Your task to perform on an android device: View the shopping cart on ebay. Search for razer huntsman on ebay, select the first entry, add it to the cart, then select checkout. Image 0: 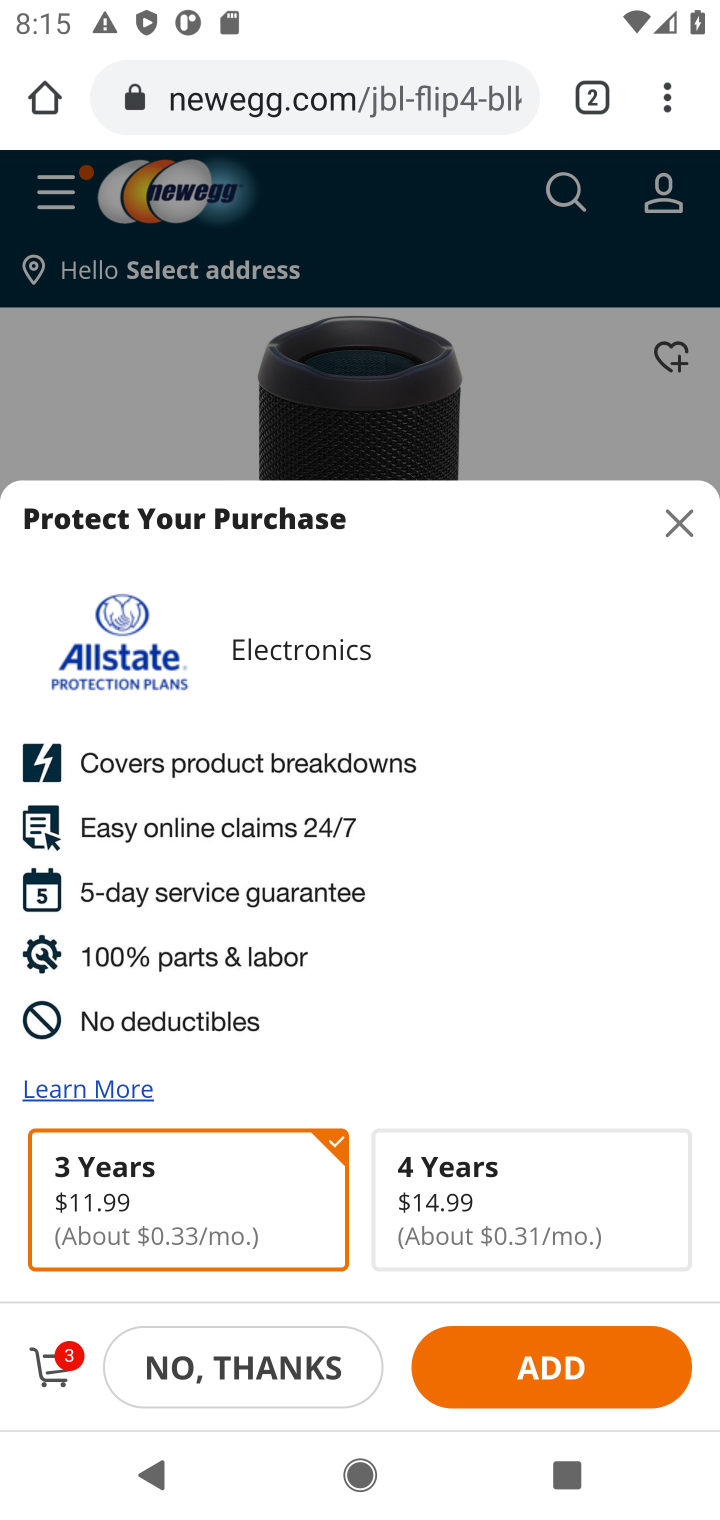
Step 0: click (210, 112)
Your task to perform on an android device: View the shopping cart on ebay. Search for razer huntsman on ebay, select the first entry, add it to the cart, then select checkout. Image 1: 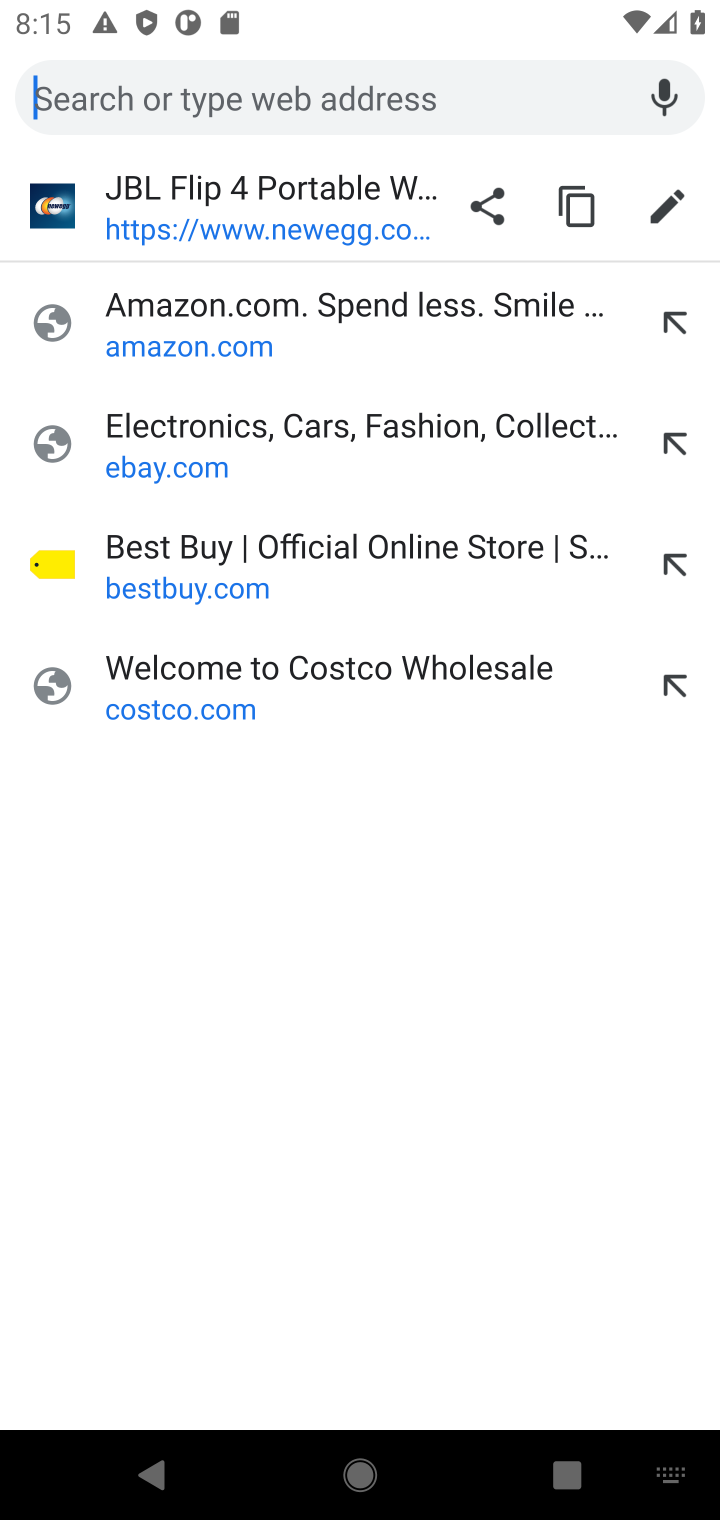
Step 1: click (173, 492)
Your task to perform on an android device: View the shopping cart on ebay. Search for razer huntsman on ebay, select the first entry, add it to the cart, then select checkout. Image 2: 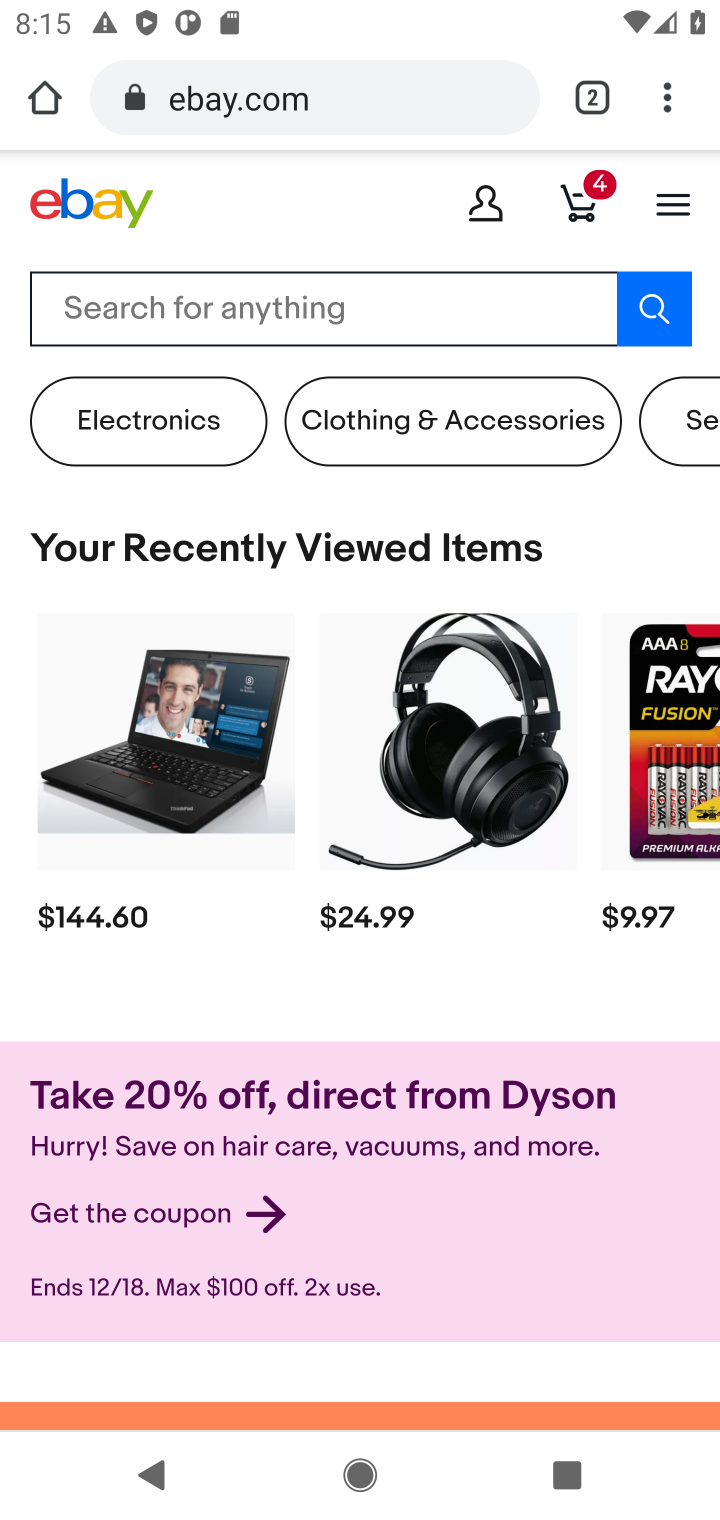
Step 2: click (583, 205)
Your task to perform on an android device: View the shopping cart on ebay. Search for razer huntsman on ebay, select the first entry, add it to the cart, then select checkout. Image 3: 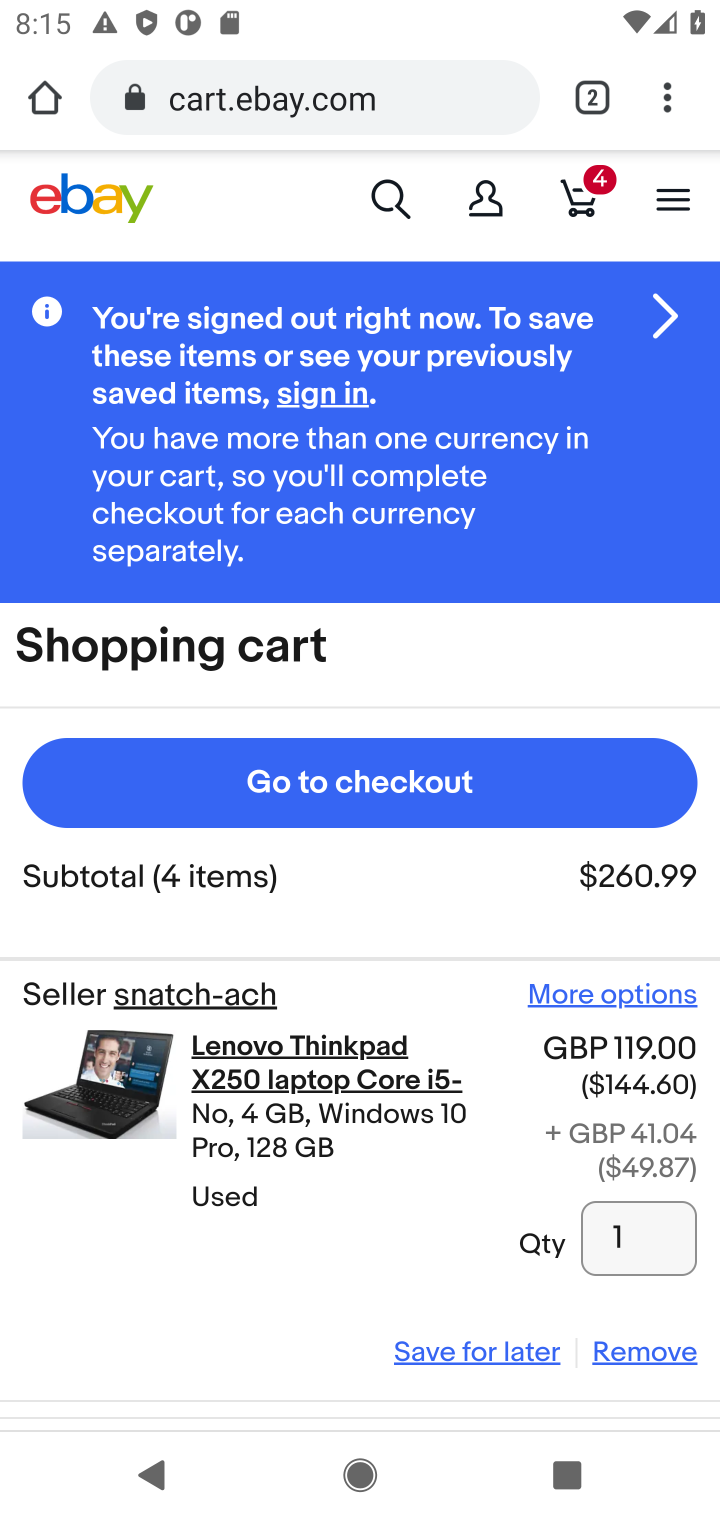
Step 3: click (383, 202)
Your task to perform on an android device: View the shopping cart on ebay. Search for razer huntsman on ebay, select the first entry, add it to the cart, then select checkout. Image 4: 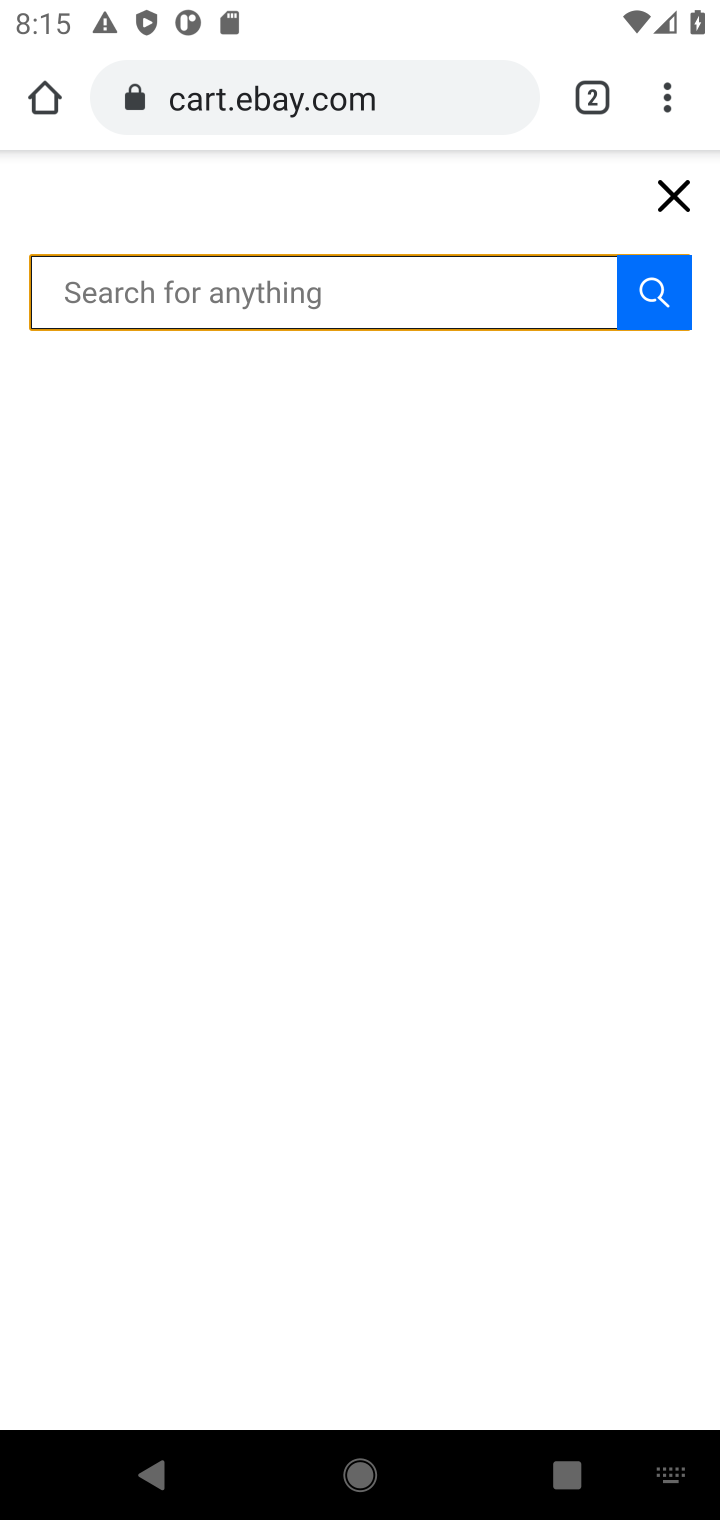
Step 4: type "razer huntsman "
Your task to perform on an android device: View the shopping cart on ebay. Search for razer huntsman on ebay, select the first entry, add it to the cart, then select checkout. Image 5: 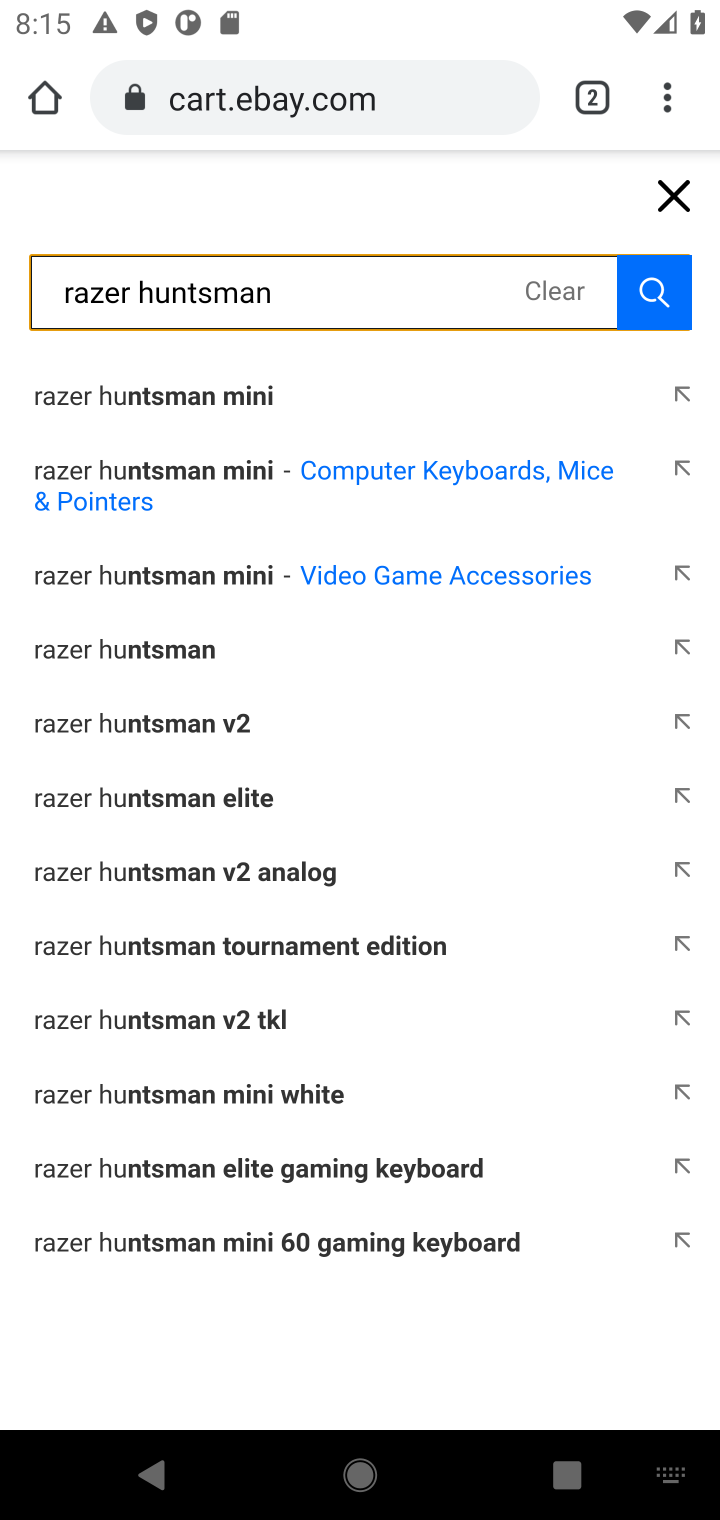
Step 5: click (186, 640)
Your task to perform on an android device: View the shopping cart on ebay. Search for razer huntsman on ebay, select the first entry, add it to the cart, then select checkout. Image 6: 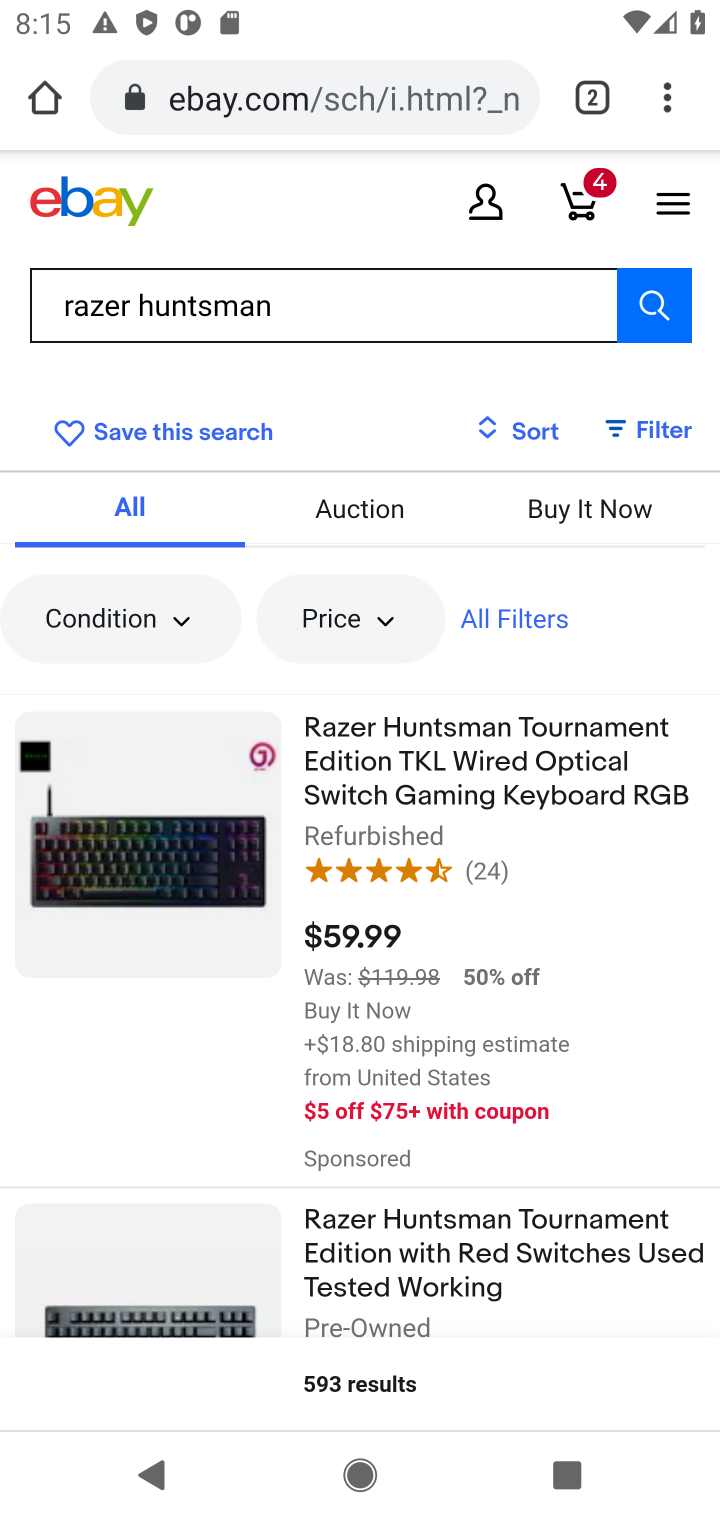
Step 6: click (470, 794)
Your task to perform on an android device: View the shopping cart on ebay. Search for razer huntsman on ebay, select the first entry, add it to the cart, then select checkout. Image 7: 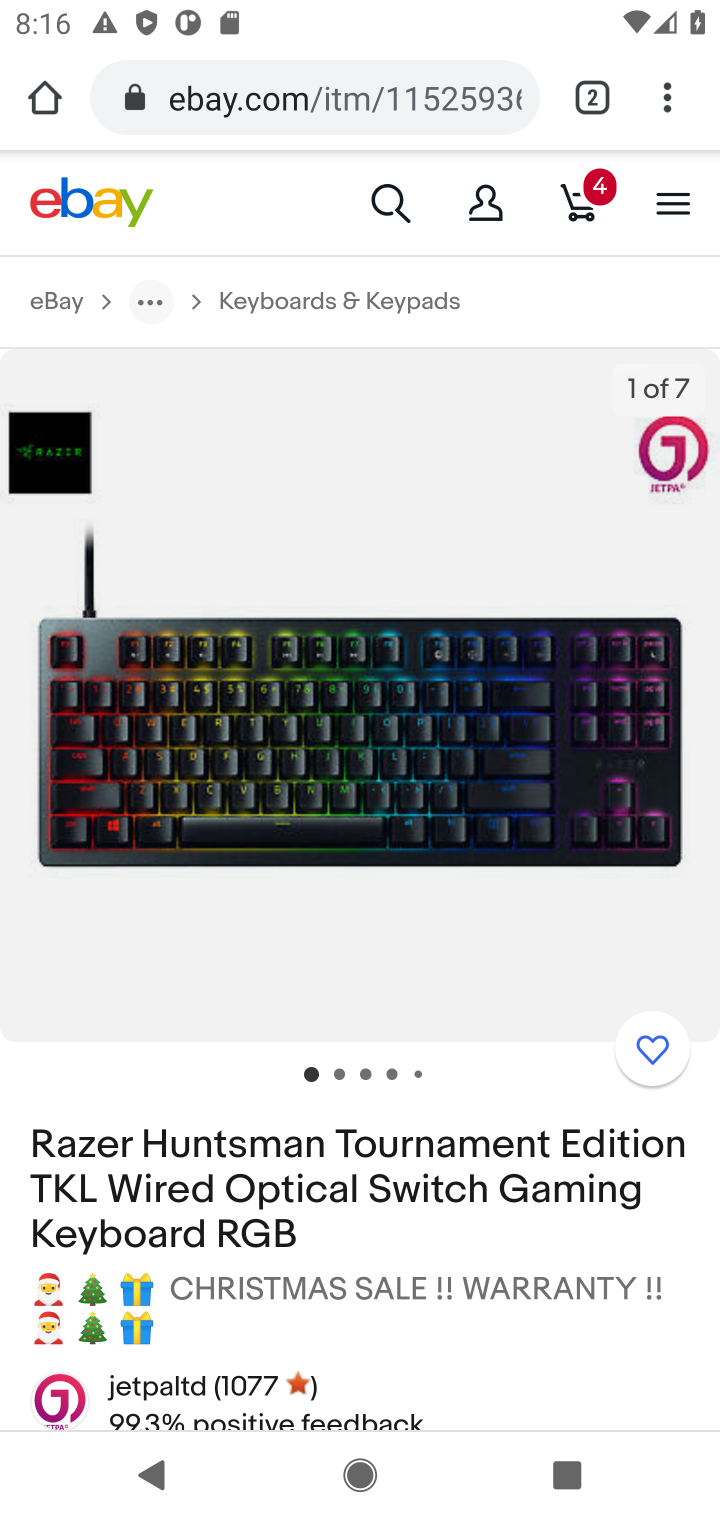
Step 7: drag from (396, 950) to (368, 387)
Your task to perform on an android device: View the shopping cart on ebay. Search for razer huntsman on ebay, select the first entry, add it to the cart, then select checkout. Image 8: 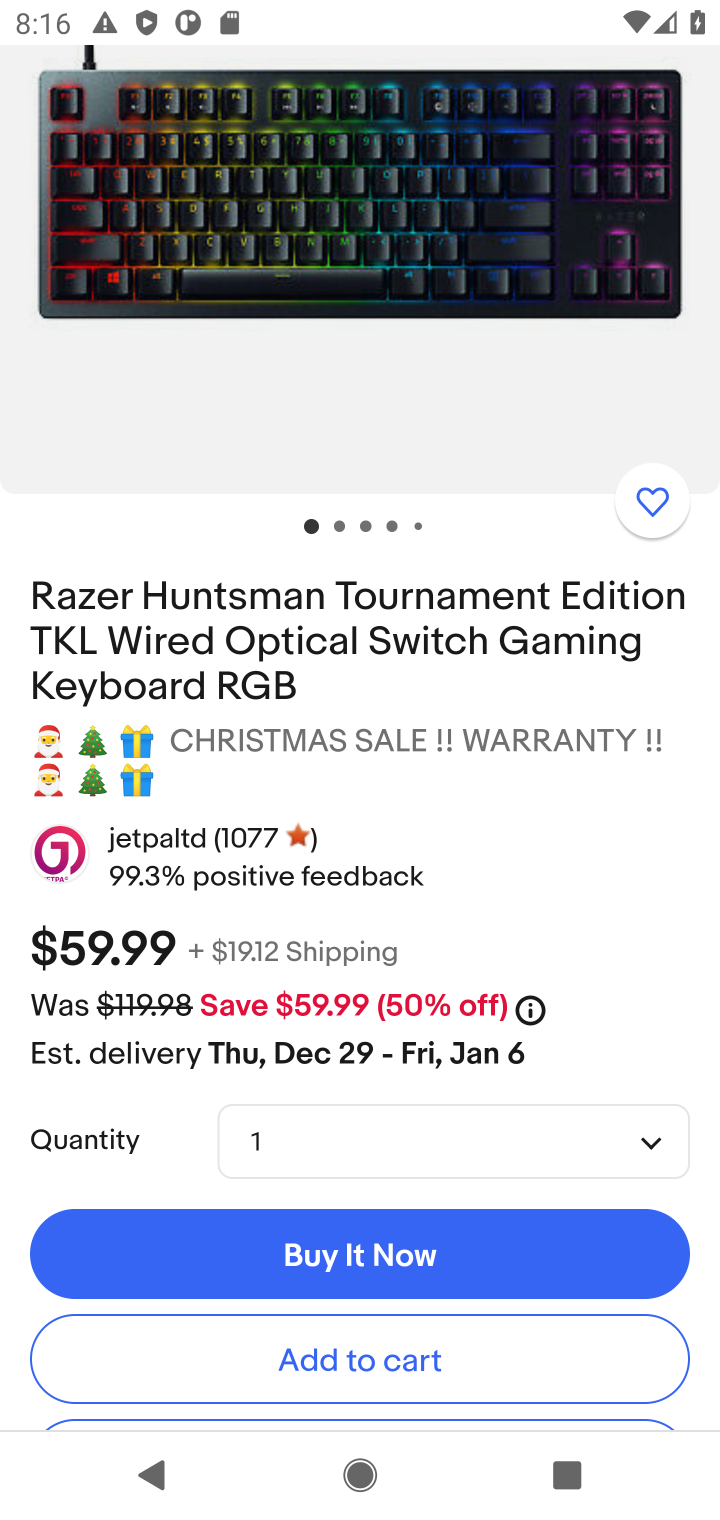
Step 8: click (361, 1363)
Your task to perform on an android device: View the shopping cart on ebay. Search for razer huntsman on ebay, select the first entry, add it to the cart, then select checkout. Image 9: 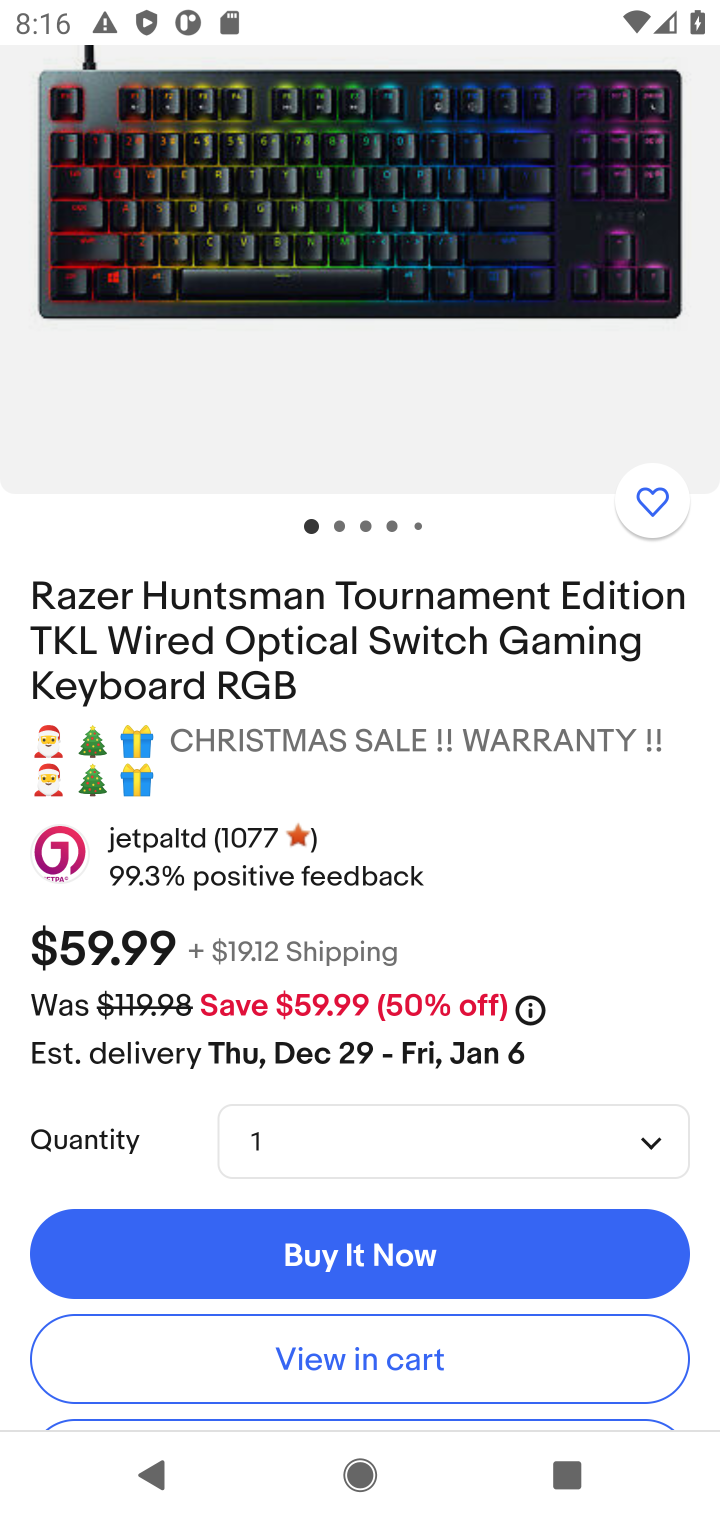
Step 9: click (365, 1367)
Your task to perform on an android device: View the shopping cart on ebay. Search for razer huntsman on ebay, select the first entry, add it to the cart, then select checkout. Image 10: 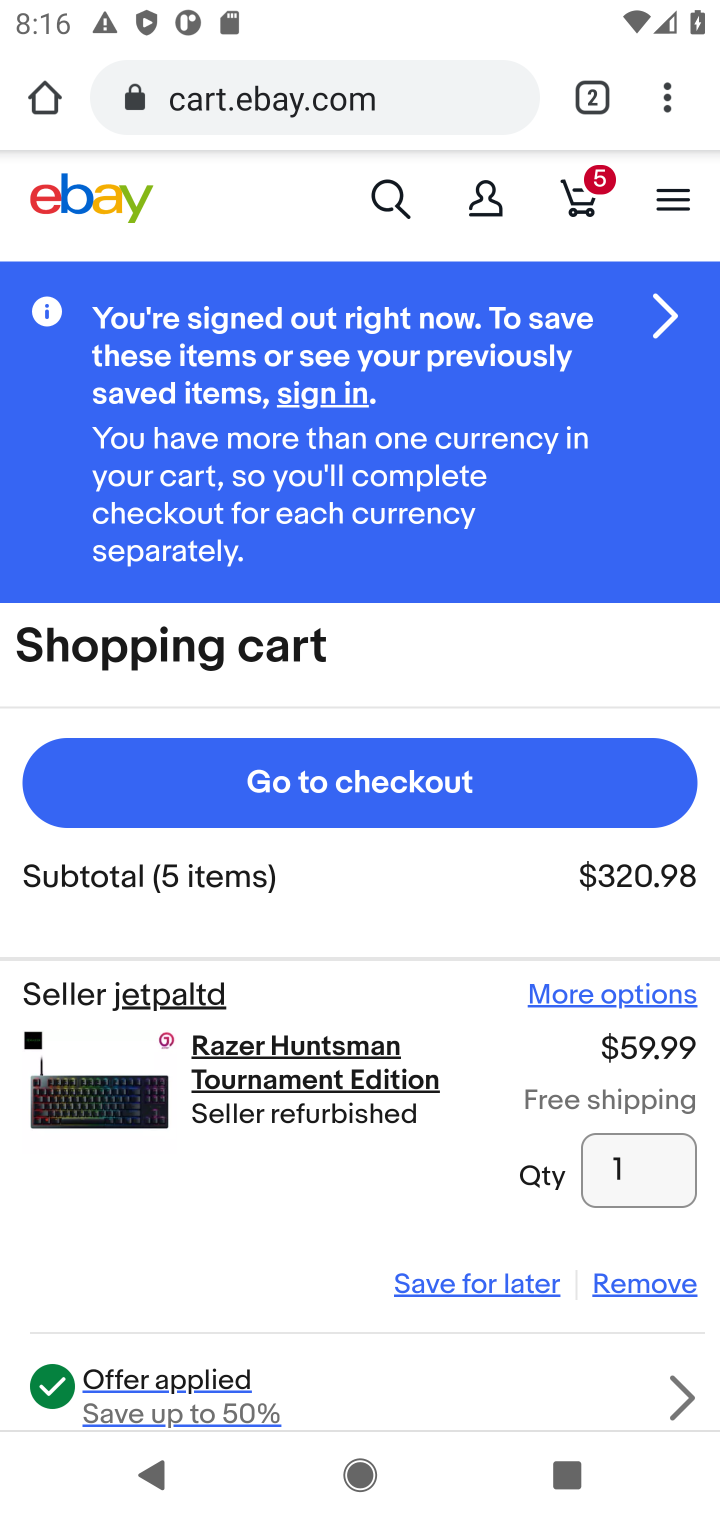
Step 10: click (293, 789)
Your task to perform on an android device: View the shopping cart on ebay. Search for razer huntsman on ebay, select the first entry, add it to the cart, then select checkout. Image 11: 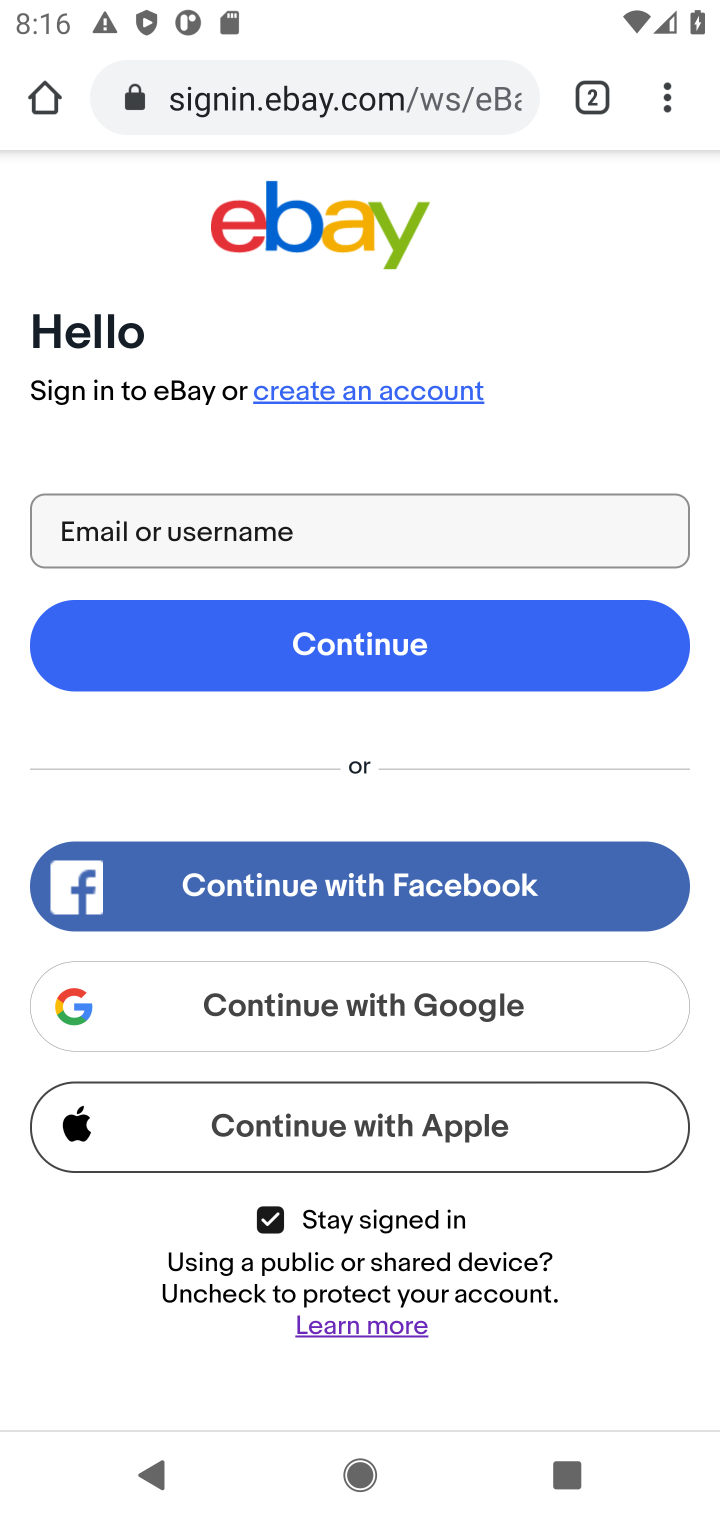
Step 11: task complete